Your task to perform on an android device: Open ESPN.com Image 0: 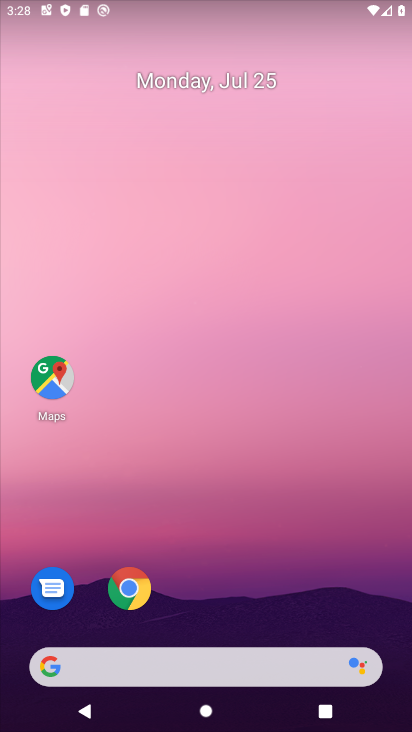
Step 0: click (139, 584)
Your task to perform on an android device: Open ESPN.com Image 1: 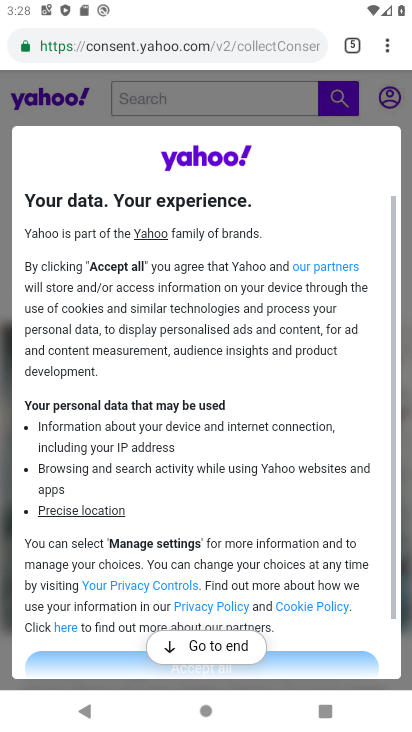
Step 1: click (354, 41)
Your task to perform on an android device: Open ESPN.com Image 2: 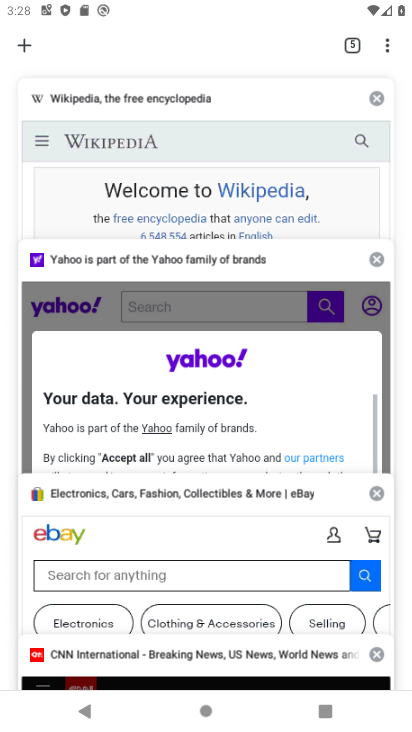
Step 2: click (15, 42)
Your task to perform on an android device: Open ESPN.com Image 3: 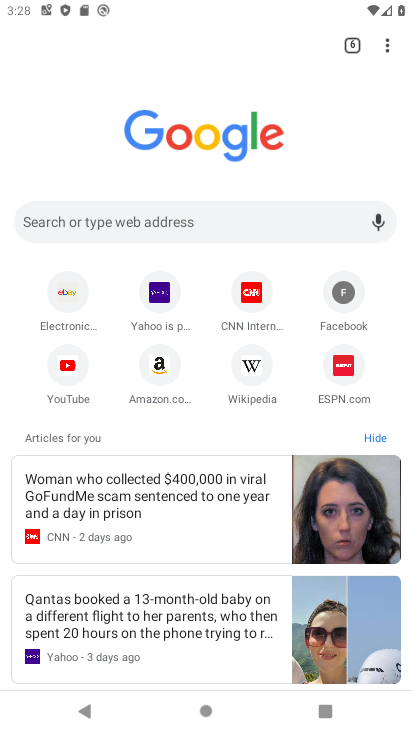
Step 3: click (365, 376)
Your task to perform on an android device: Open ESPN.com Image 4: 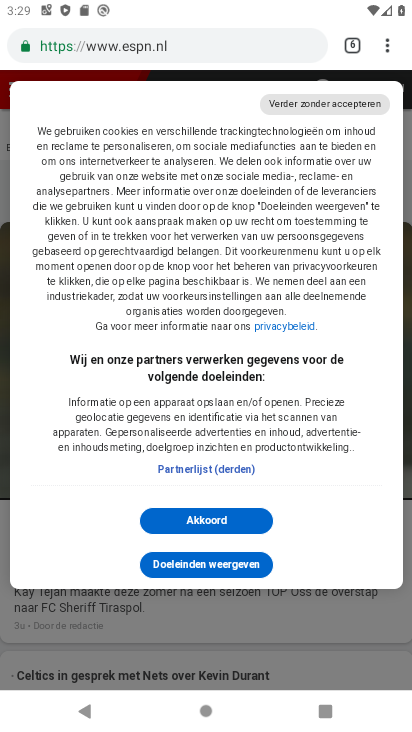
Step 4: task complete